Your task to perform on an android device: Open network settings Image 0: 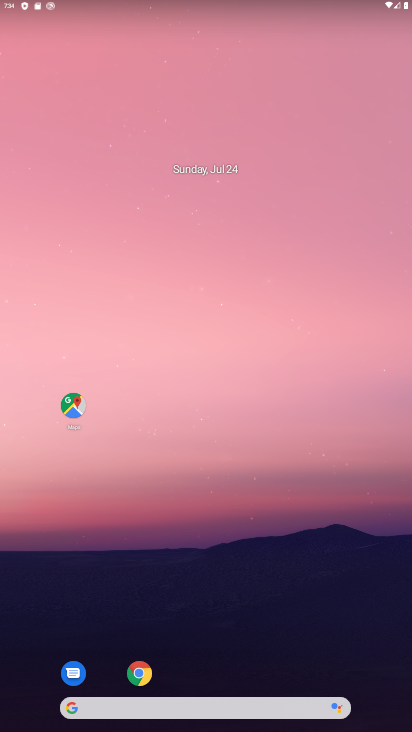
Step 0: drag from (175, 670) to (207, 113)
Your task to perform on an android device: Open network settings Image 1: 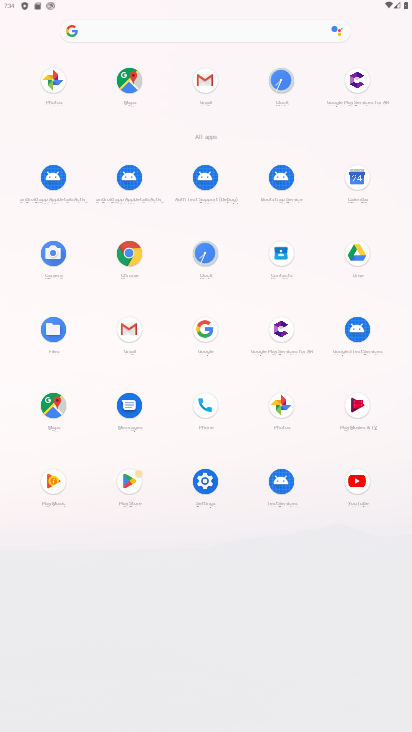
Step 1: click (200, 478)
Your task to perform on an android device: Open network settings Image 2: 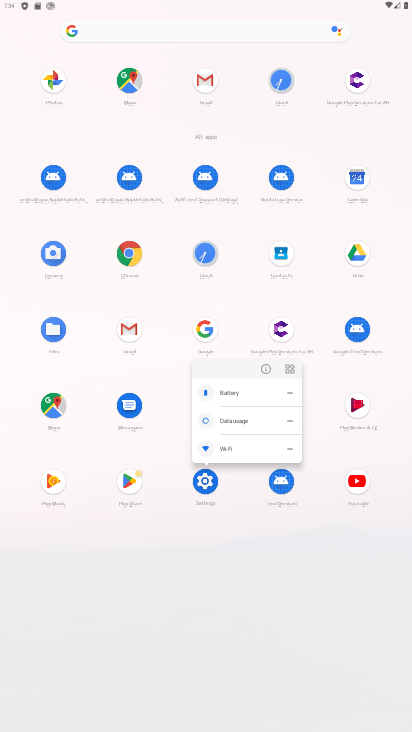
Step 2: click (263, 367)
Your task to perform on an android device: Open network settings Image 3: 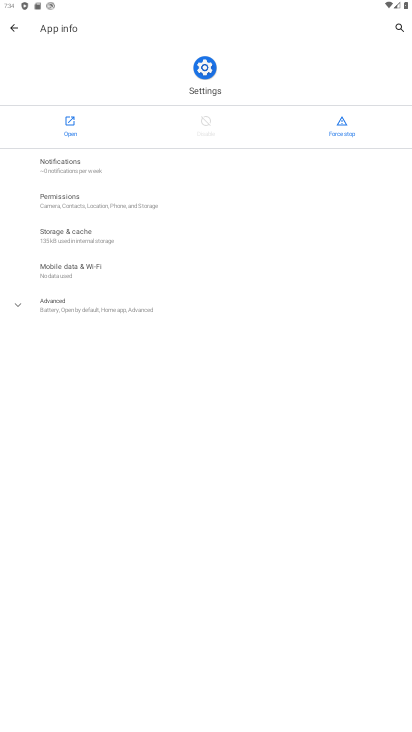
Step 3: click (64, 126)
Your task to perform on an android device: Open network settings Image 4: 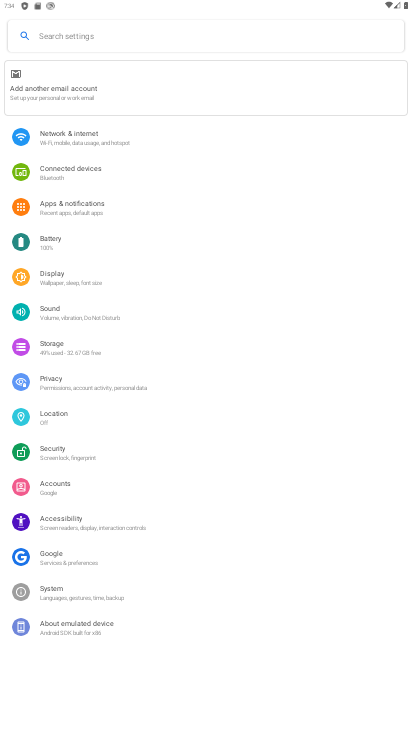
Step 4: click (85, 134)
Your task to perform on an android device: Open network settings Image 5: 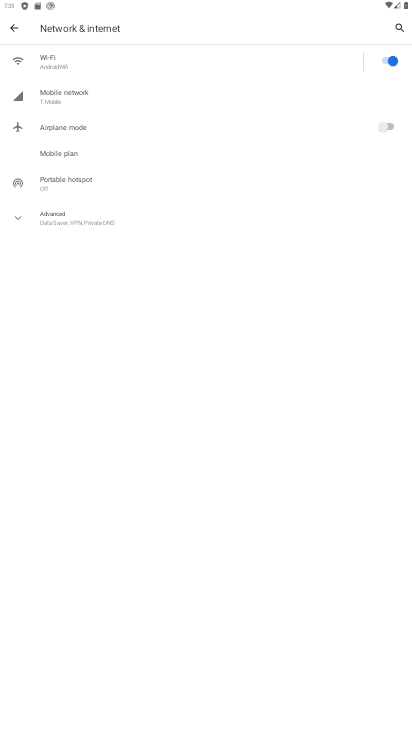
Step 5: task complete